Your task to perform on an android device: Open Amazon Image 0: 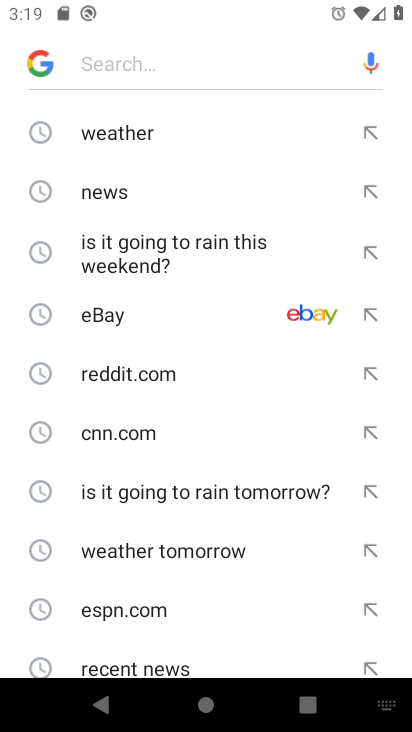
Step 0: press home button
Your task to perform on an android device: Open Amazon Image 1: 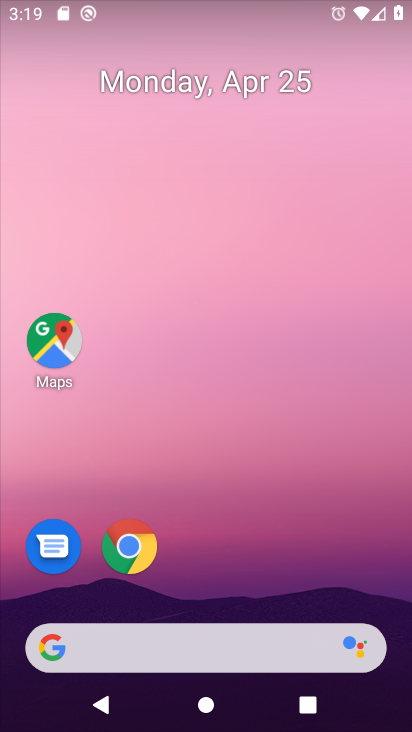
Step 1: click (138, 541)
Your task to perform on an android device: Open Amazon Image 2: 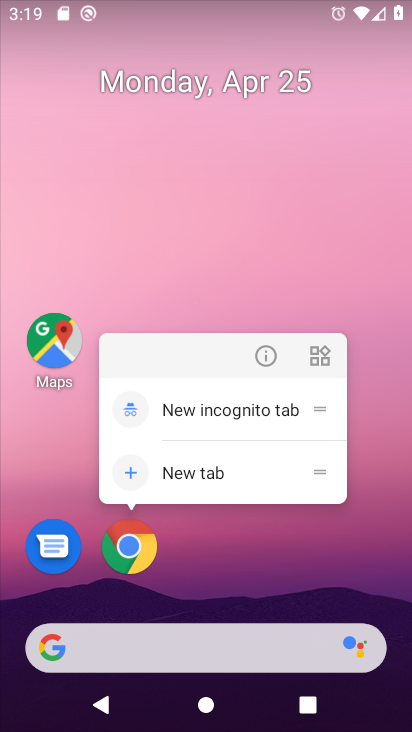
Step 2: click (138, 541)
Your task to perform on an android device: Open Amazon Image 3: 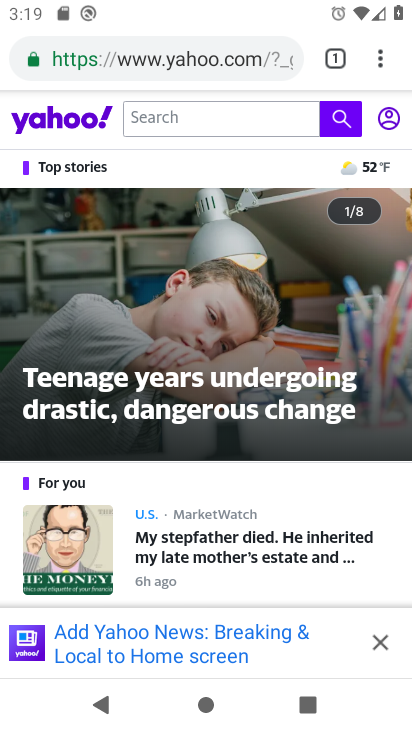
Step 3: click (388, 61)
Your task to perform on an android device: Open Amazon Image 4: 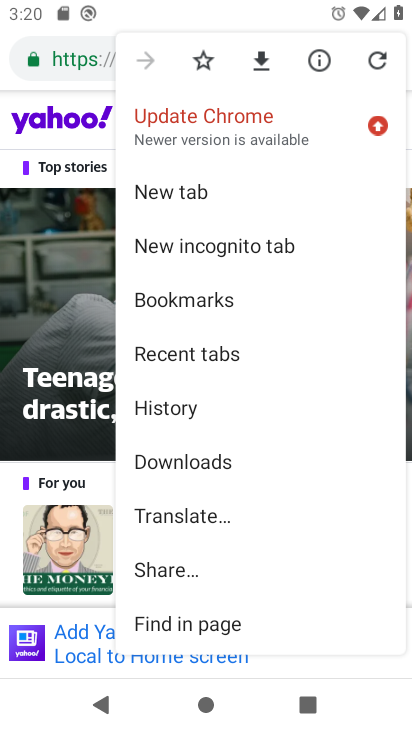
Step 4: click (221, 193)
Your task to perform on an android device: Open Amazon Image 5: 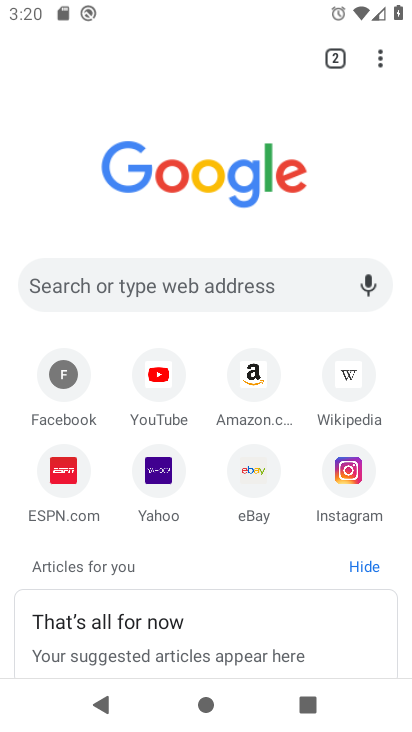
Step 5: click (269, 377)
Your task to perform on an android device: Open Amazon Image 6: 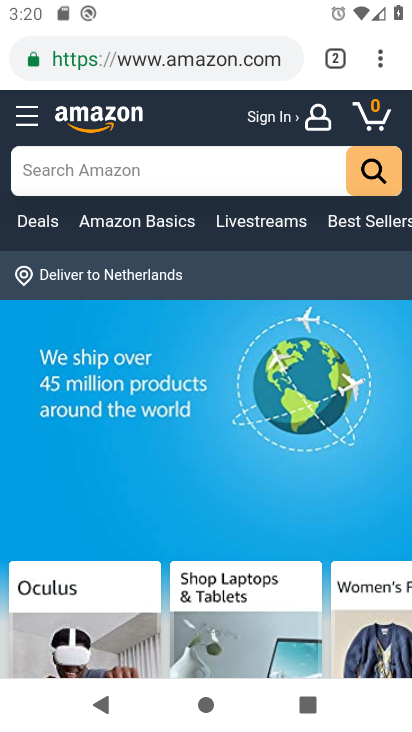
Step 6: task complete